Your task to perform on an android device: turn off notifications settings in the gmail app Image 0: 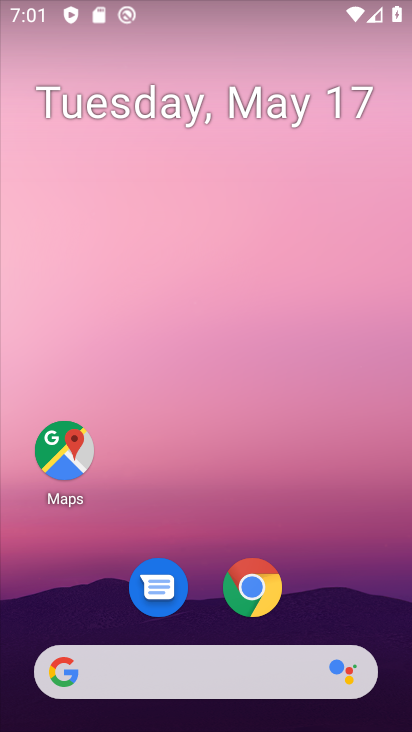
Step 0: drag from (242, 697) to (257, 249)
Your task to perform on an android device: turn off notifications settings in the gmail app Image 1: 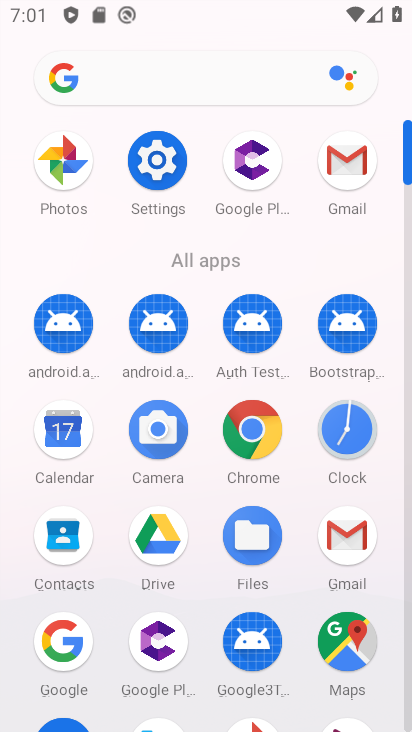
Step 1: click (330, 176)
Your task to perform on an android device: turn off notifications settings in the gmail app Image 2: 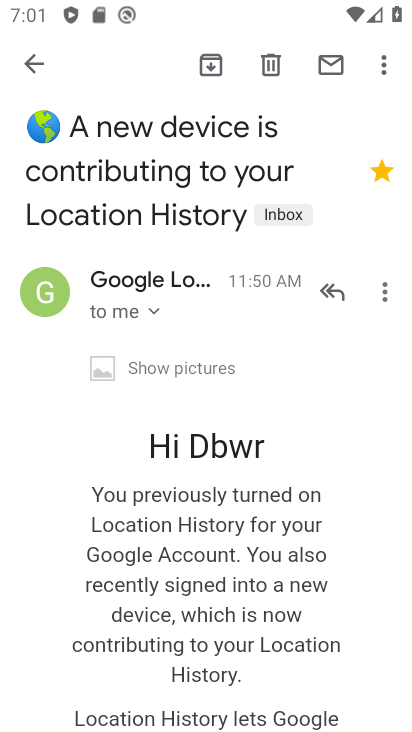
Step 2: click (47, 74)
Your task to perform on an android device: turn off notifications settings in the gmail app Image 3: 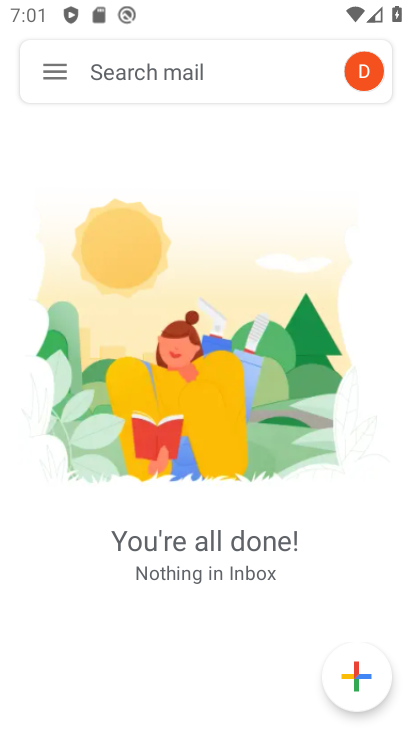
Step 3: click (58, 76)
Your task to perform on an android device: turn off notifications settings in the gmail app Image 4: 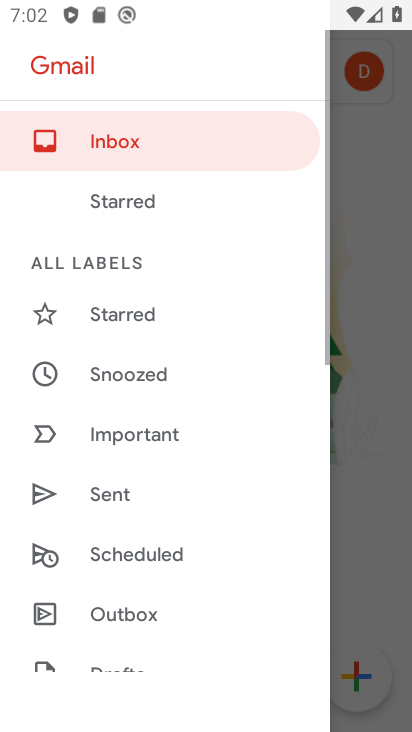
Step 4: drag from (131, 557) to (197, 395)
Your task to perform on an android device: turn off notifications settings in the gmail app Image 5: 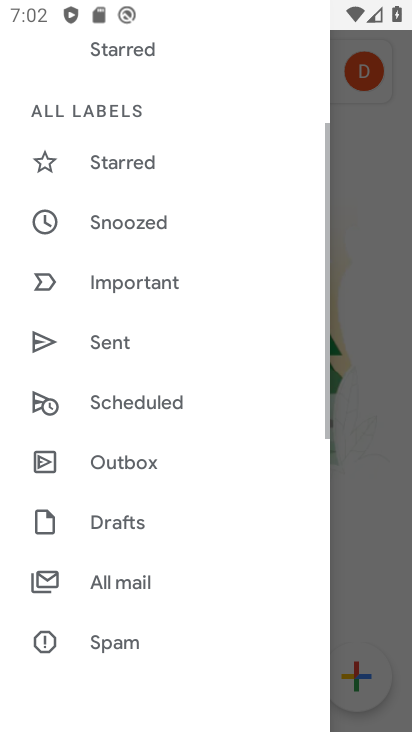
Step 5: drag from (145, 574) to (250, 305)
Your task to perform on an android device: turn off notifications settings in the gmail app Image 6: 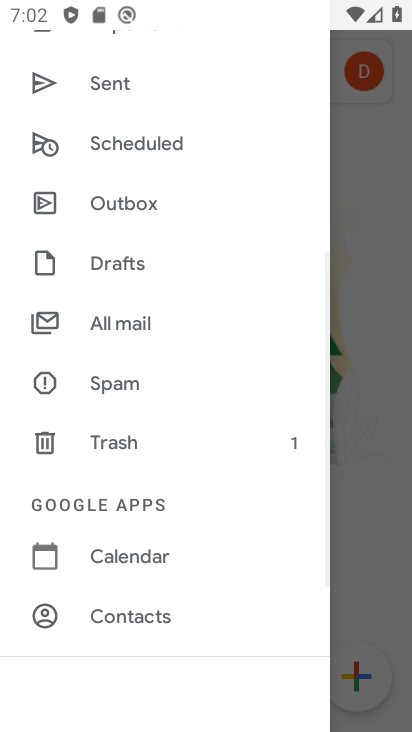
Step 6: drag from (196, 550) to (218, 419)
Your task to perform on an android device: turn off notifications settings in the gmail app Image 7: 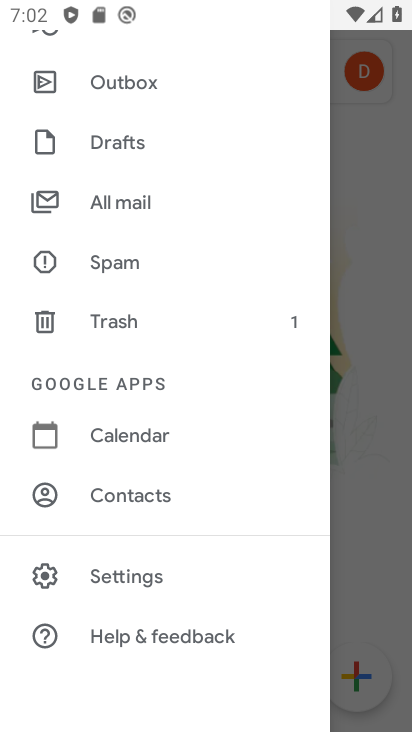
Step 7: click (120, 583)
Your task to perform on an android device: turn off notifications settings in the gmail app Image 8: 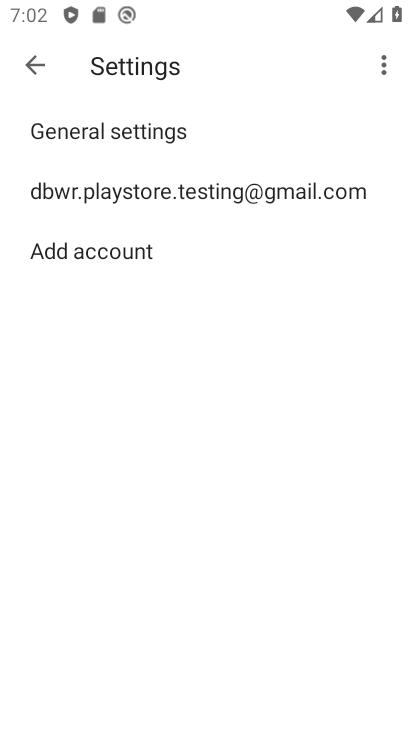
Step 8: click (168, 193)
Your task to perform on an android device: turn off notifications settings in the gmail app Image 9: 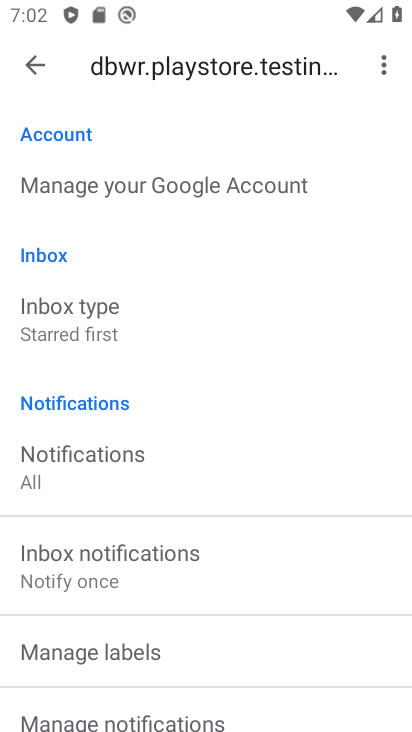
Step 9: click (50, 441)
Your task to perform on an android device: turn off notifications settings in the gmail app Image 10: 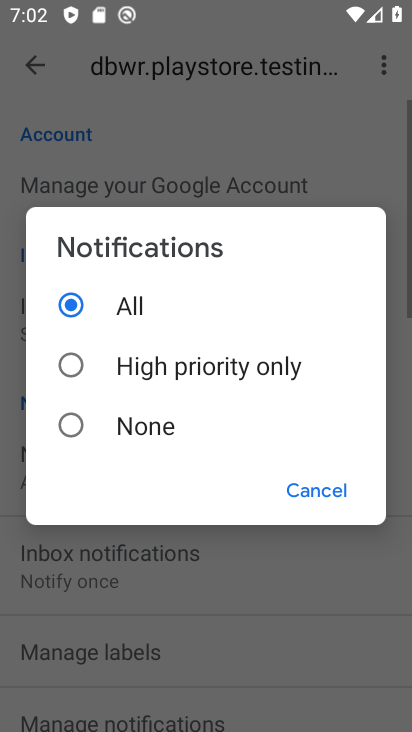
Step 10: click (127, 420)
Your task to perform on an android device: turn off notifications settings in the gmail app Image 11: 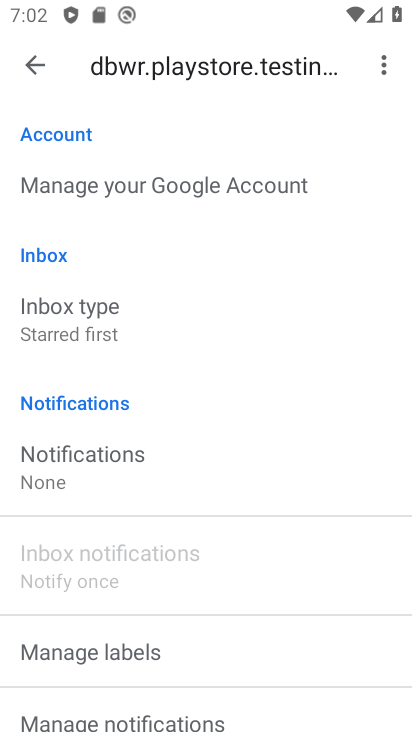
Step 11: task complete